Your task to perform on an android device: install app "Clock" Image 0: 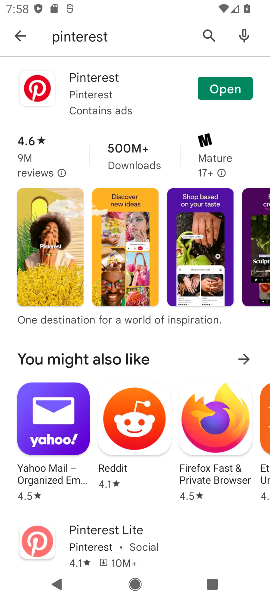
Step 0: click (13, 35)
Your task to perform on an android device: install app "Clock" Image 1: 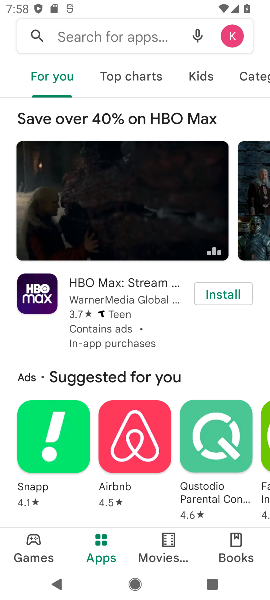
Step 1: click (100, 36)
Your task to perform on an android device: install app "Clock" Image 2: 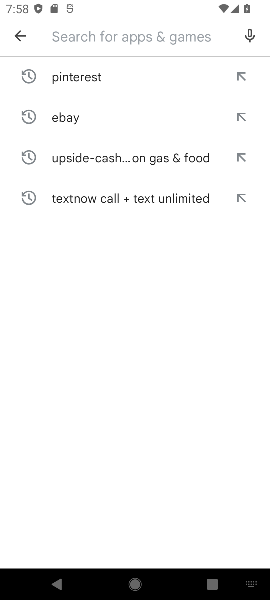
Step 2: type "Clock"
Your task to perform on an android device: install app "Clock" Image 3: 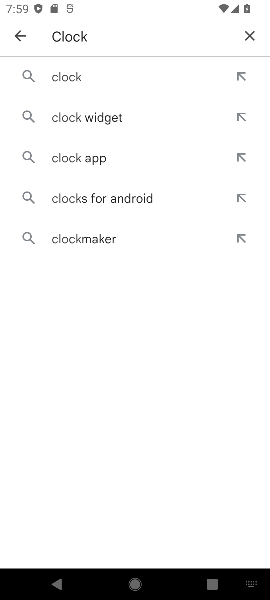
Step 3: click (66, 85)
Your task to perform on an android device: install app "Clock" Image 4: 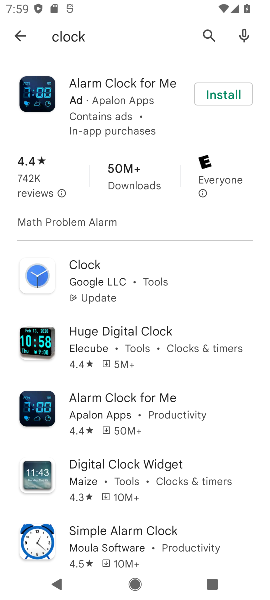
Step 4: click (130, 277)
Your task to perform on an android device: install app "Clock" Image 5: 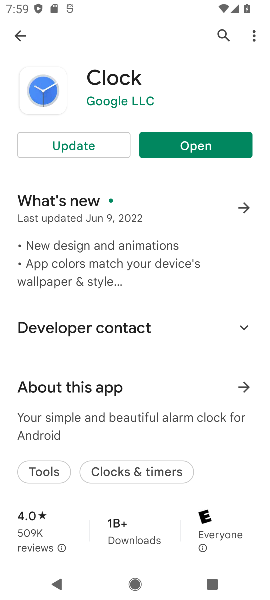
Step 5: click (180, 136)
Your task to perform on an android device: install app "Clock" Image 6: 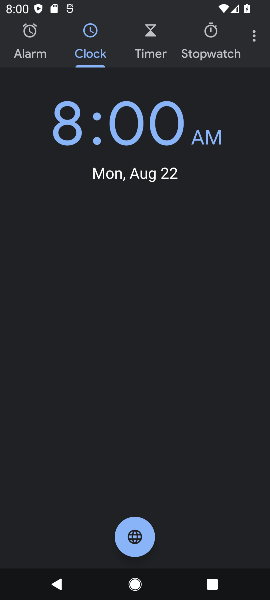
Step 6: task complete